Your task to perform on an android device: Show me productivity apps on the Play Store Image 0: 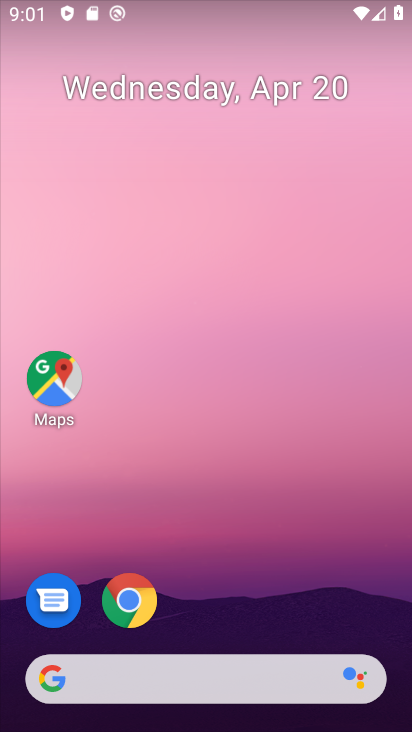
Step 0: drag from (176, 615) to (233, 1)
Your task to perform on an android device: Show me productivity apps on the Play Store Image 1: 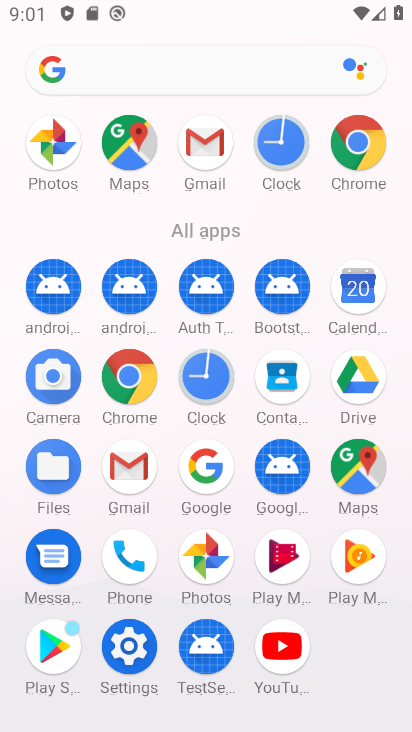
Step 1: click (61, 642)
Your task to perform on an android device: Show me productivity apps on the Play Store Image 2: 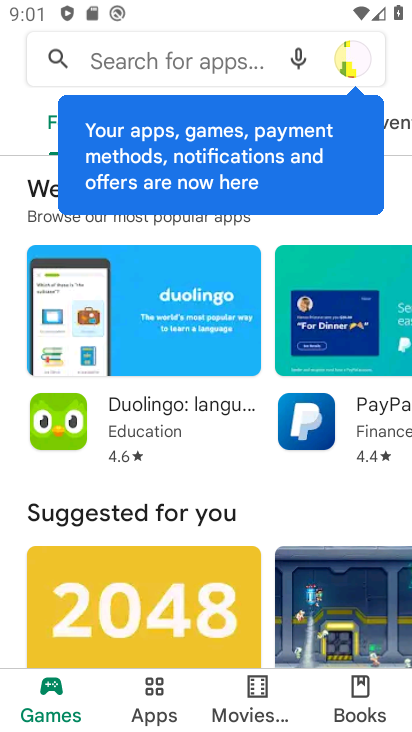
Step 2: click (163, 703)
Your task to perform on an android device: Show me productivity apps on the Play Store Image 3: 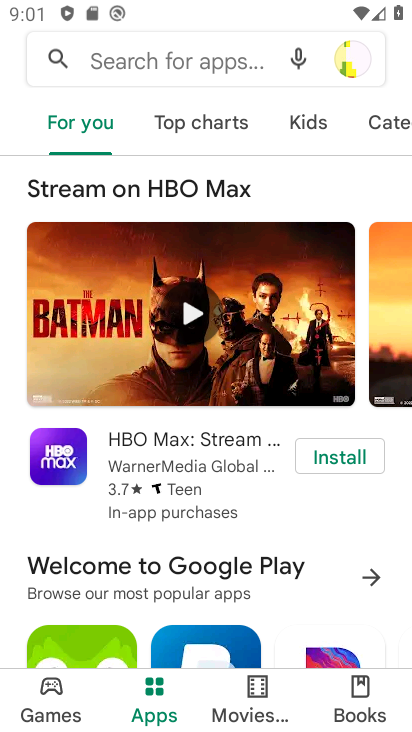
Step 3: click (320, 125)
Your task to perform on an android device: Show me productivity apps on the Play Store Image 4: 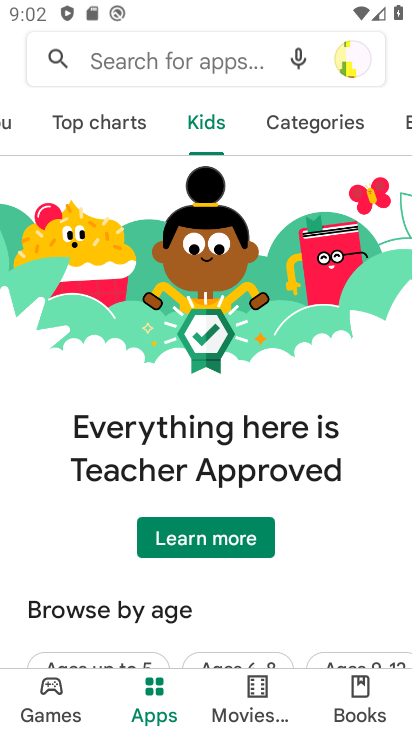
Step 4: click (403, 123)
Your task to perform on an android device: Show me productivity apps on the Play Store Image 5: 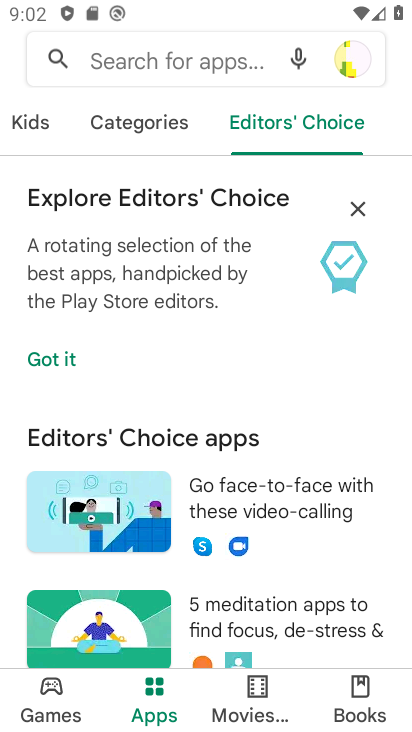
Step 5: click (141, 133)
Your task to perform on an android device: Show me productivity apps on the Play Store Image 6: 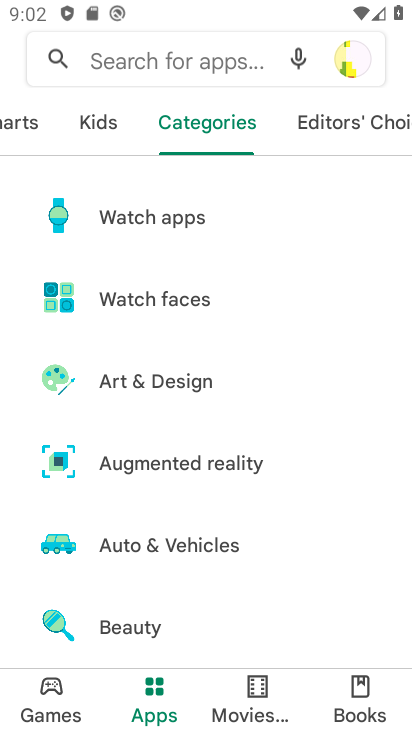
Step 6: drag from (155, 568) to (160, 178)
Your task to perform on an android device: Show me productivity apps on the Play Store Image 7: 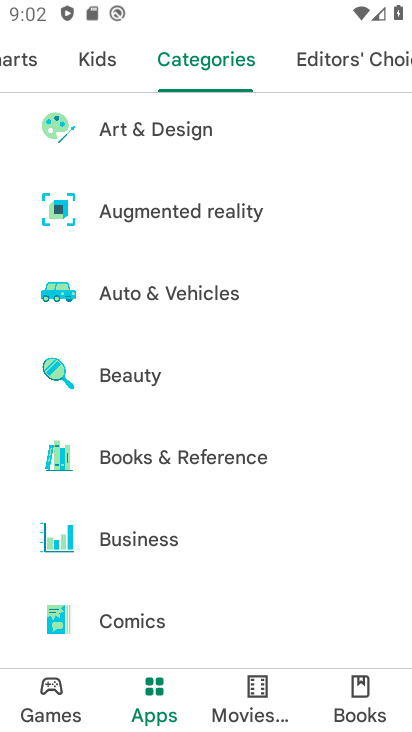
Step 7: drag from (147, 625) to (160, 217)
Your task to perform on an android device: Show me productivity apps on the Play Store Image 8: 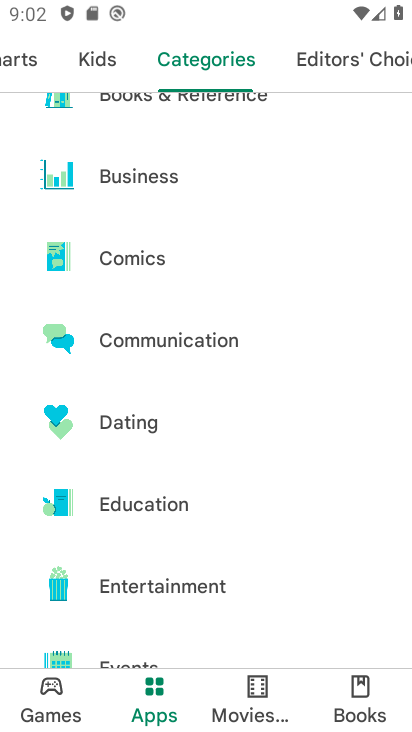
Step 8: drag from (181, 610) to (165, 174)
Your task to perform on an android device: Show me productivity apps on the Play Store Image 9: 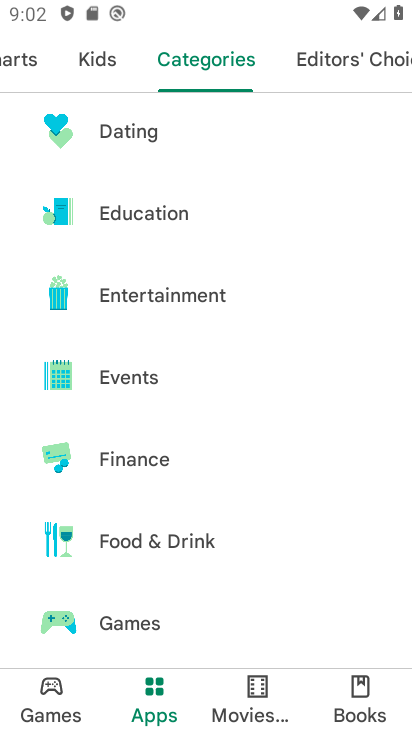
Step 9: drag from (155, 619) to (147, 106)
Your task to perform on an android device: Show me productivity apps on the Play Store Image 10: 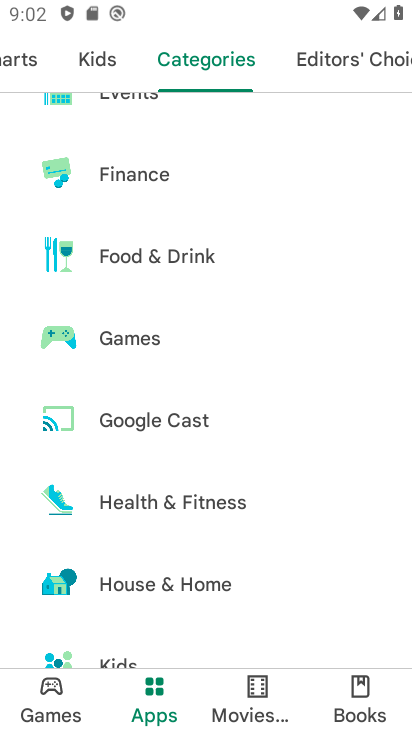
Step 10: drag from (151, 600) to (169, 102)
Your task to perform on an android device: Show me productivity apps on the Play Store Image 11: 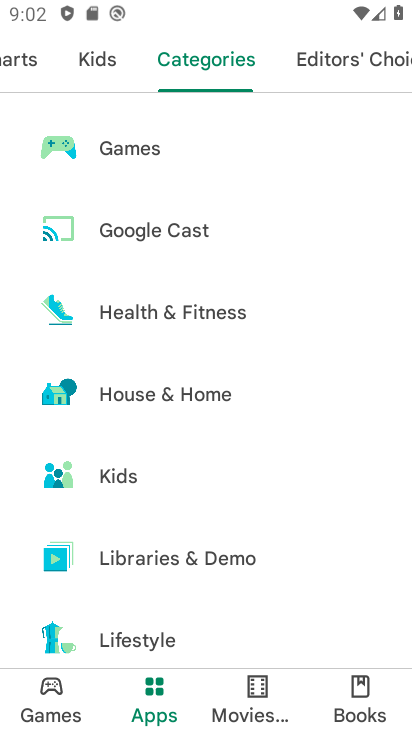
Step 11: drag from (133, 601) to (165, 131)
Your task to perform on an android device: Show me productivity apps on the Play Store Image 12: 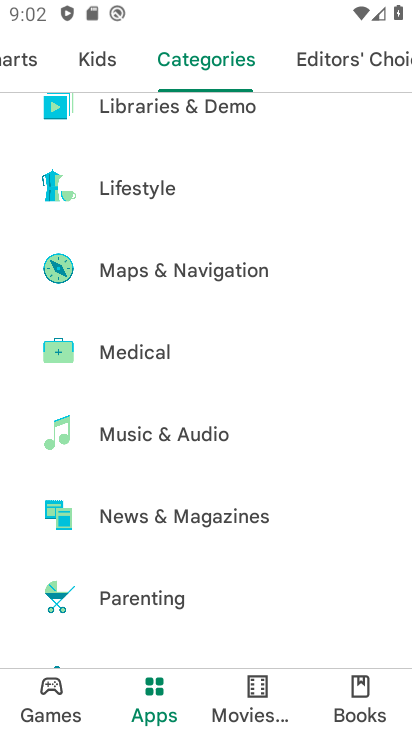
Step 12: drag from (142, 644) to (141, 178)
Your task to perform on an android device: Show me productivity apps on the Play Store Image 13: 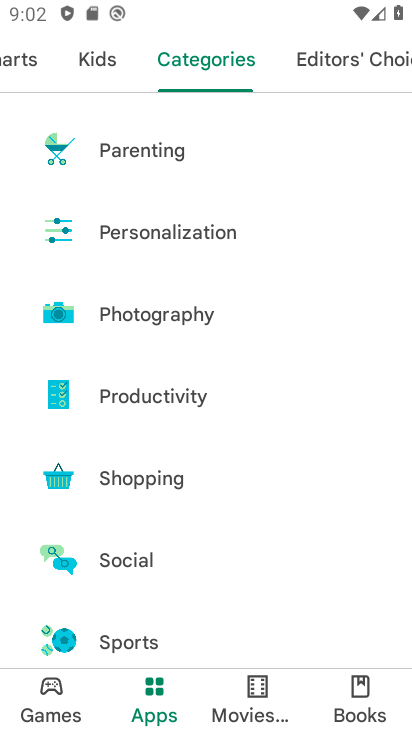
Step 13: drag from (167, 605) to (165, 159)
Your task to perform on an android device: Show me productivity apps on the Play Store Image 14: 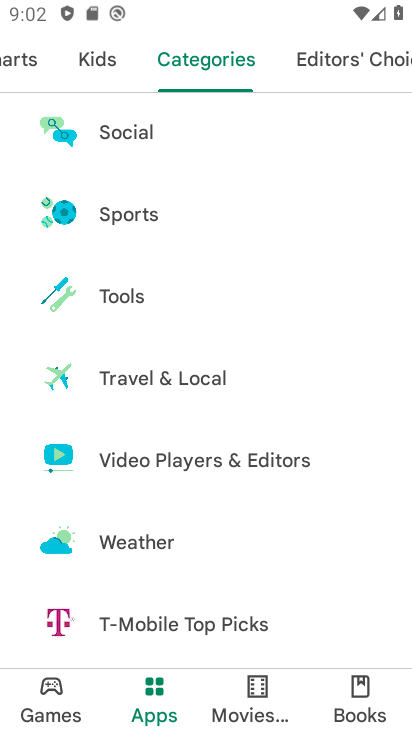
Step 14: drag from (165, 157) to (175, 560)
Your task to perform on an android device: Show me productivity apps on the Play Store Image 15: 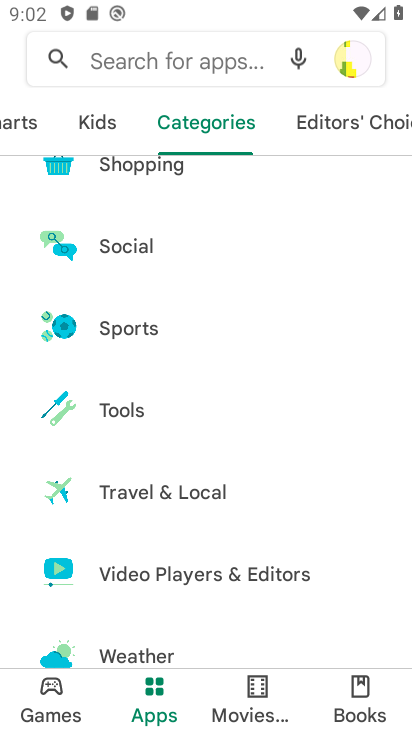
Step 15: drag from (192, 237) to (172, 615)
Your task to perform on an android device: Show me productivity apps on the Play Store Image 16: 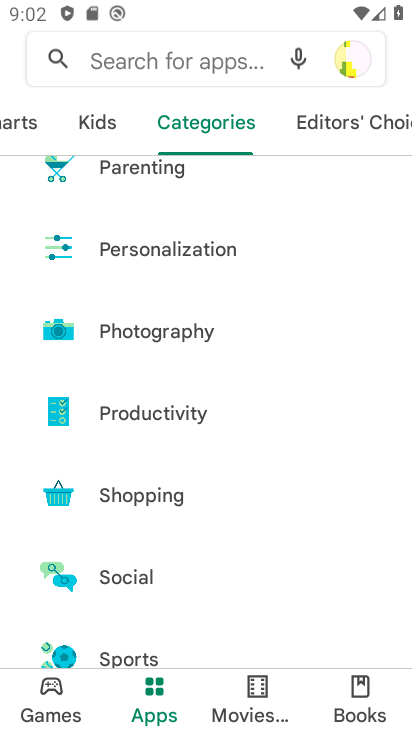
Step 16: drag from (165, 215) to (175, 457)
Your task to perform on an android device: Show me productivity apps on the Play Store Image 17: 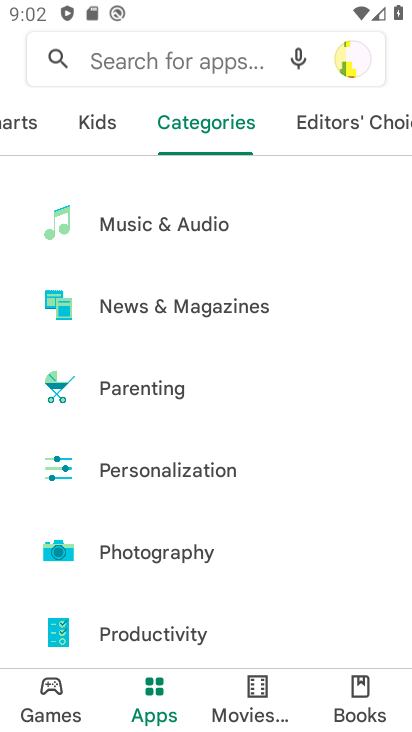
Step 17: click (110, 629)
Your task to perform on an android device: Show me productivity apps on the Play Store Image 18: 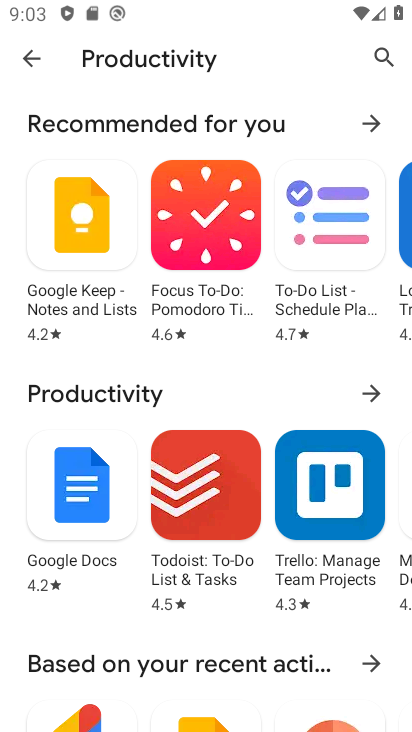
Step 18: task complete